Your task to perform on an android device: Open network settings Image 0: 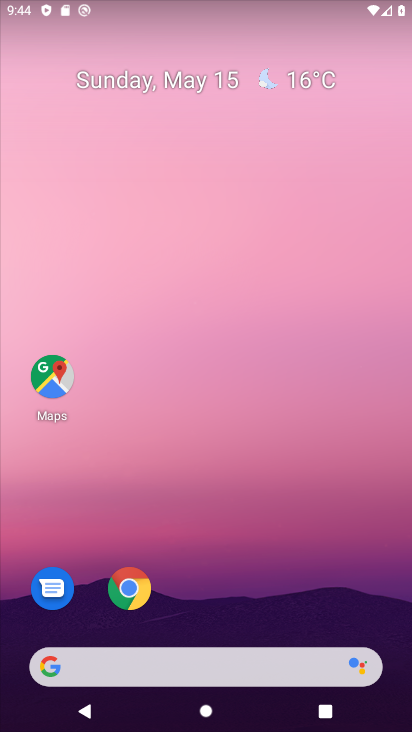
Step 0: drag from (221, 219) to (242, 22)
Your task to perform on an android device: Open network settings Image 1: 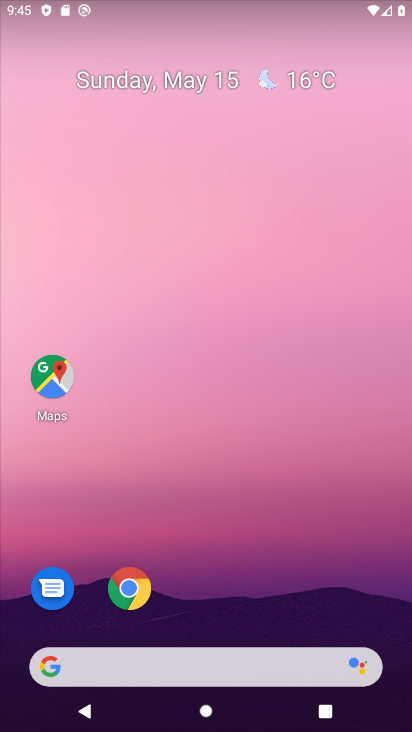
Step 1: drag from (189, 609) to (231, 38)
Your task to perform on an android device: Open network settings Image 2: 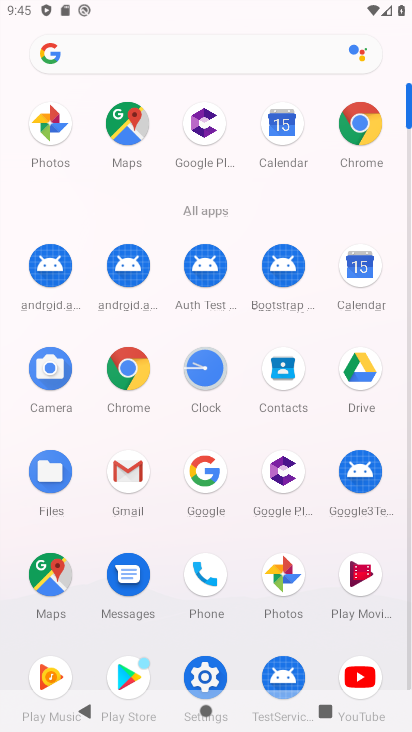
Step 2: click (201, 667)
Your task to perform on an android device: Open network settings Image 3: 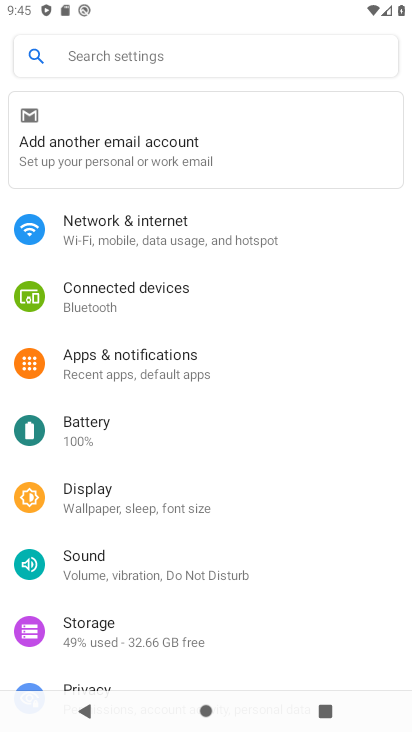
Step 3: drag from (192, 197) to (176, 248)
Your task to perform on an android device: Open network settings Image 4: 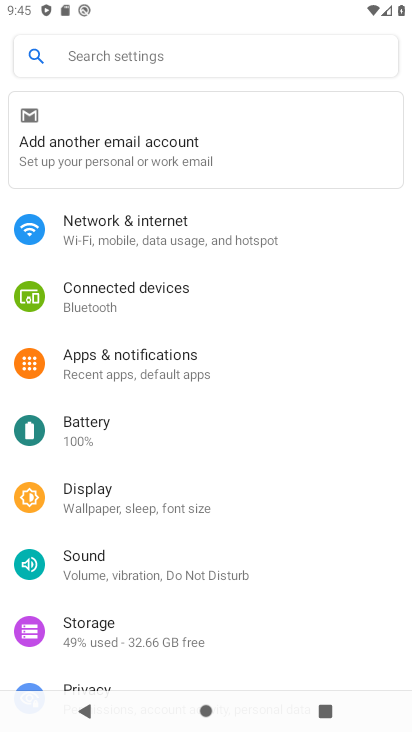
Step 4: click (176, 248)
Your task to perform on an android device: Open network settings Image 5: 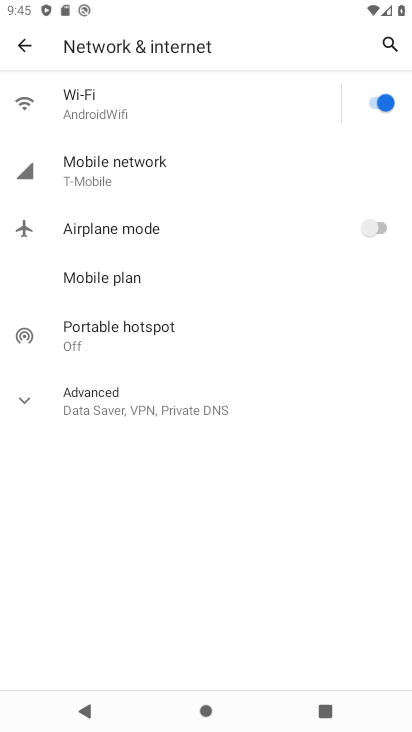
Step 5: click (167, 163)
Your task to perform on an android device: Open network settings Image 6: 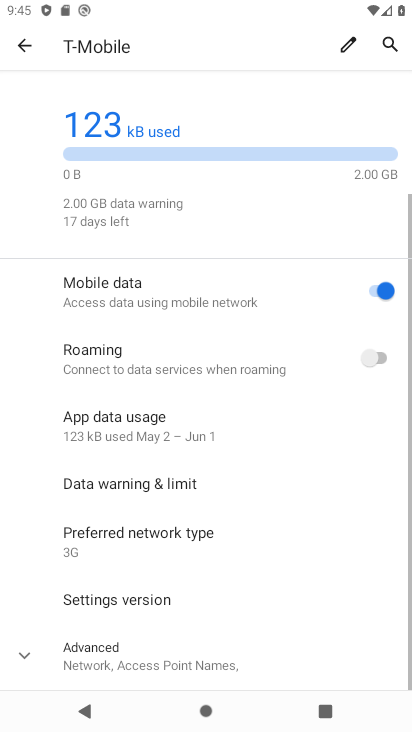
Step 6: task complete